Your task to perform on an android device: Show me recent news Image 0: 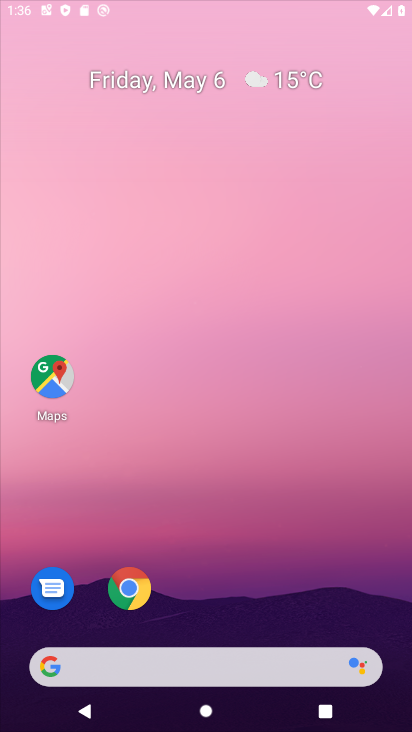
Step 0: click (262, 59)
Your task to perform on an android device: Show me recent news Image 1: 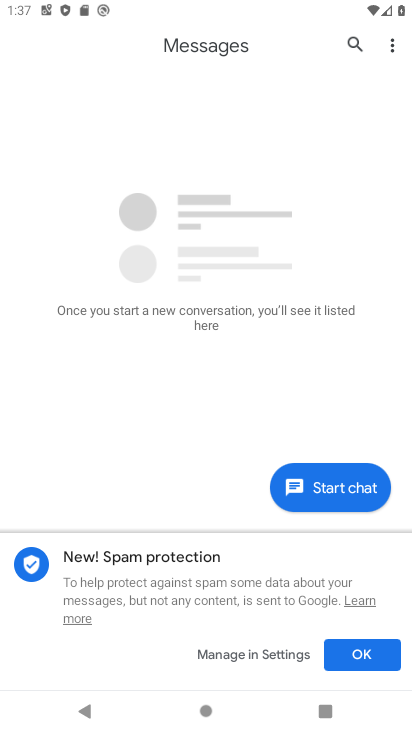
Step 1: drag from (189, 619) to (195, 9)
Your task to perform on an android device: Show me recent news Image 2: 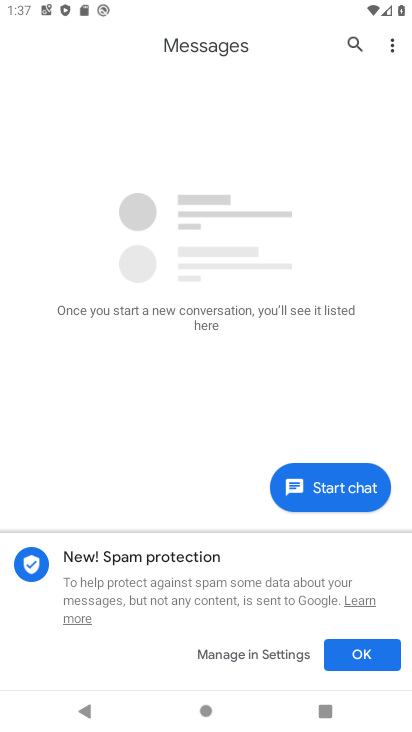
Step 2: drag from (211, 614) to (219, 267)
Your task to perform on an android device: Show me recent news Image 3: 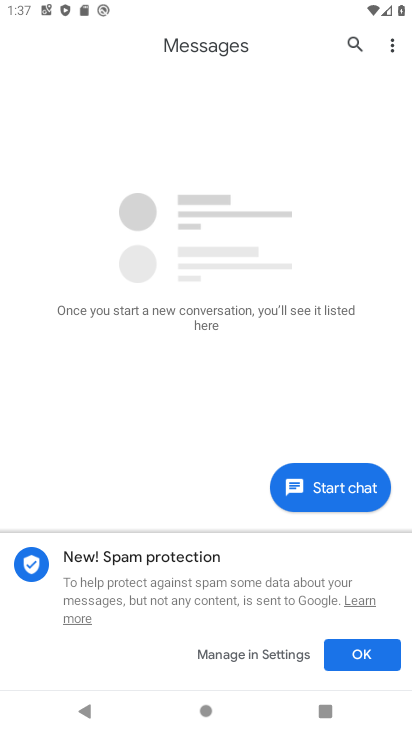
Step 3: press home button
Your task to perform on an android device: Show me recent news Image 4: 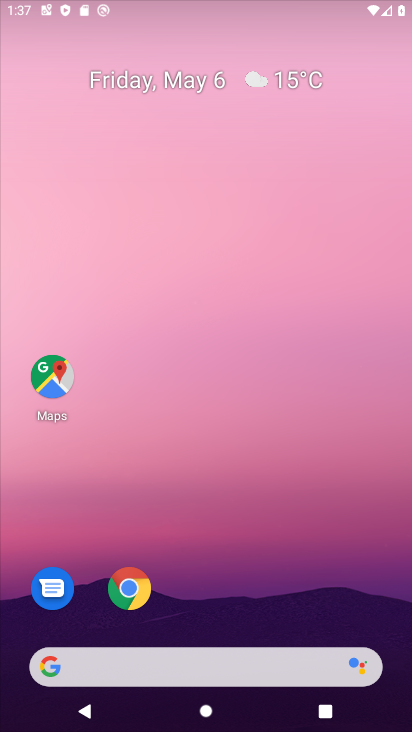
Step 4: drag from (190, 499) to (249, 103)
Your task to perform on an android device: Show me recent news Image 5: 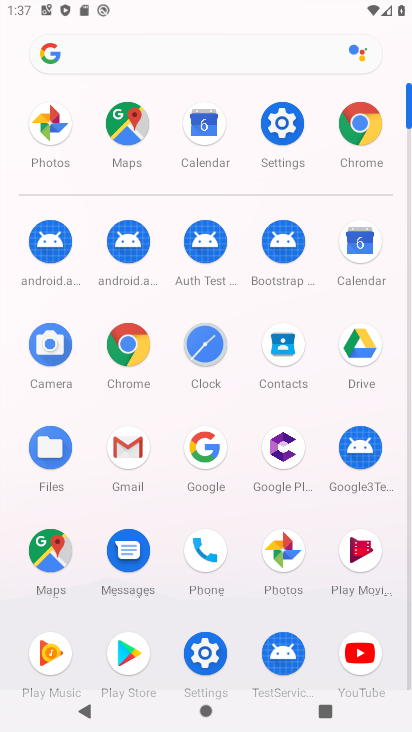
Step 5: click (349, 126)
Your task to perform on an android device: Show me recent news Image 6: 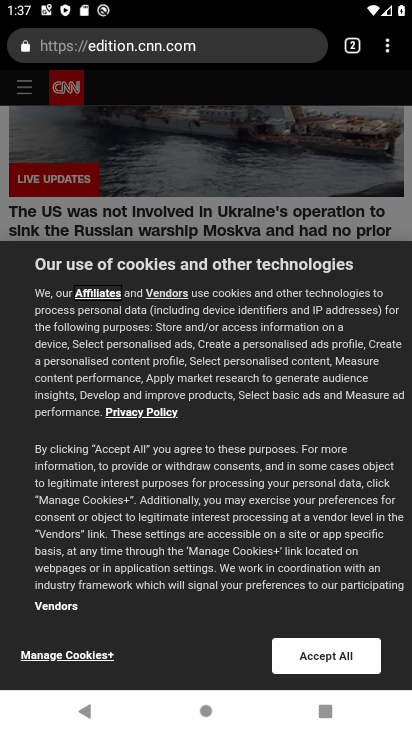
Step 6: drag from (221, 140) to (195, 624)
Your task to perform on an android device: Show me recent news Image 7: 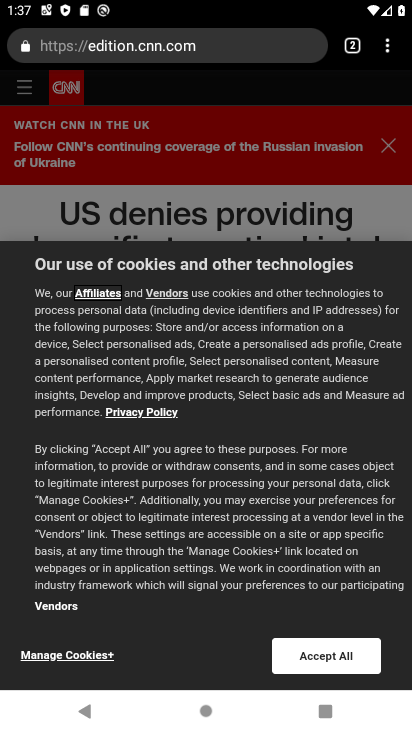
Step 7: click (178, 51)
Your task to perform on an android device: Show me recent news Image 8: 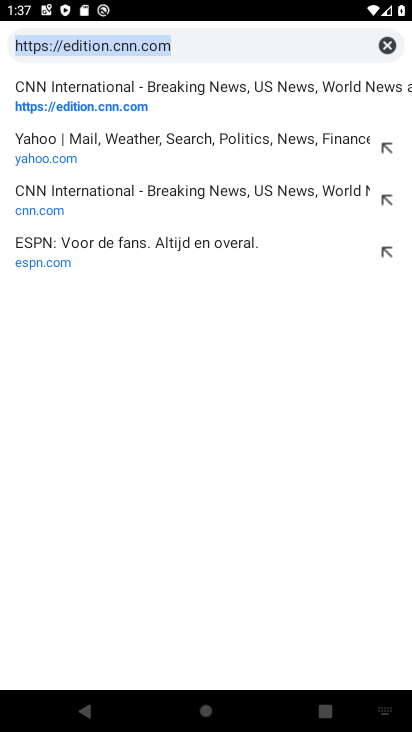
Step 8: click (375, 47)
Your task to perform on an android device: Show me recent news Image 9: 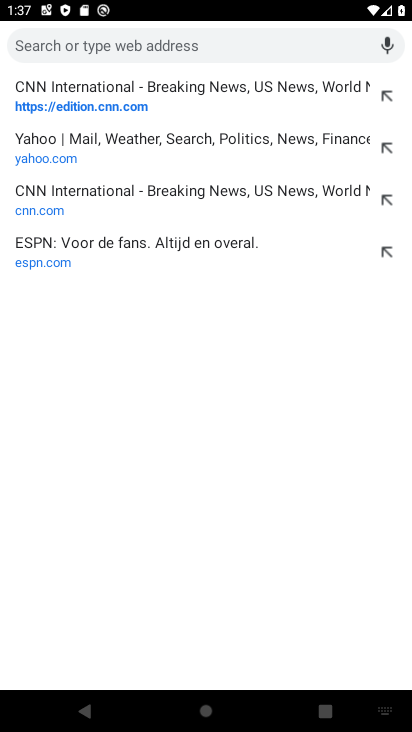
Step 9: type "recent news"
Your task to perform on an android device: Show me recent news Image 10: 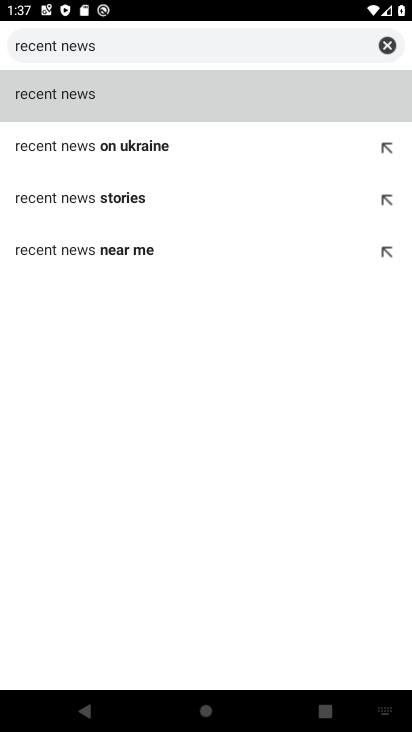
Step 10: click (67, 92)
Your task to perform on an android device: Show me recent news Image 11: 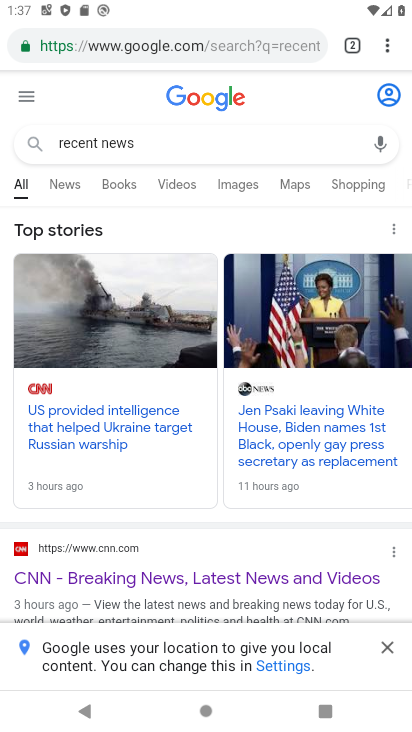
Step 11: drag from (161, 572) to (172, 288)
Your task to perform on an android device: Show me recent news Image 12: 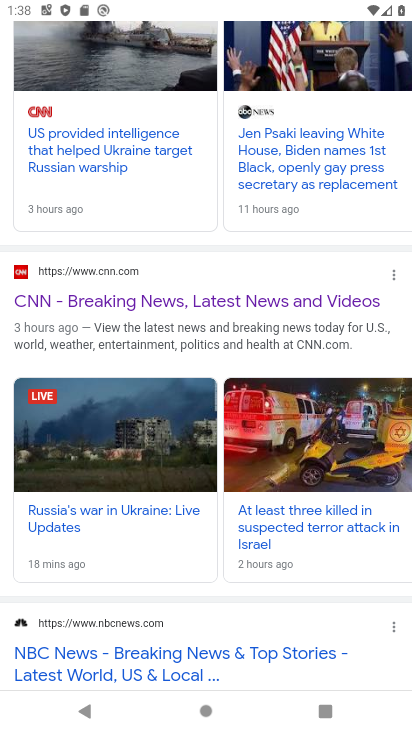
Step 12: click (97, 314)
Your task to perform on an android device: Show me recent news Image 13: 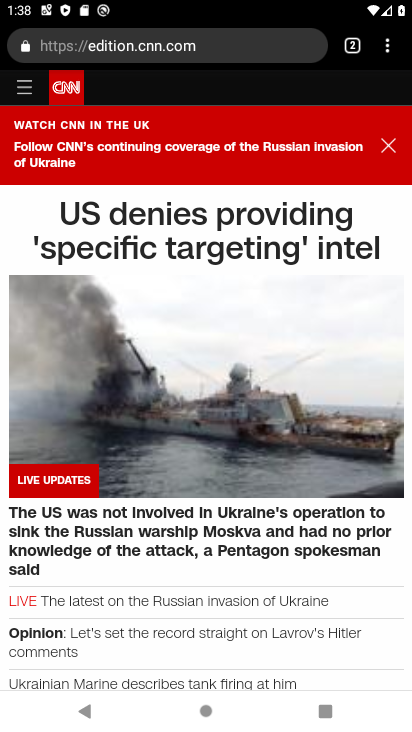
Step 13: task complete